Your task to perform on an android device: turn on showing notifications on the lock screen Image 0: 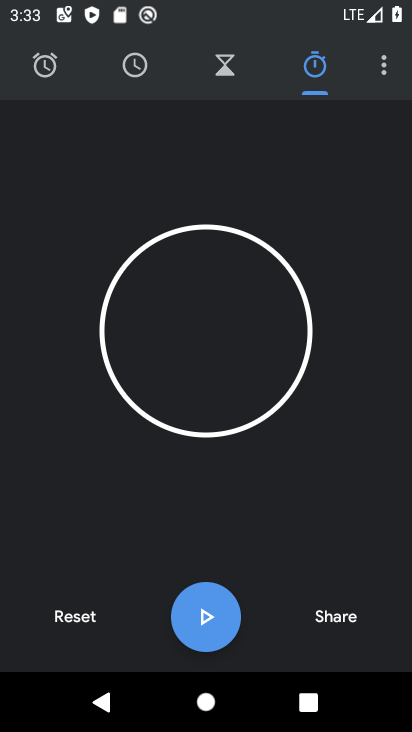
Step 0: press home button
Your task to perform on an android device: turn on showing notifications on the lock screen Image 1: 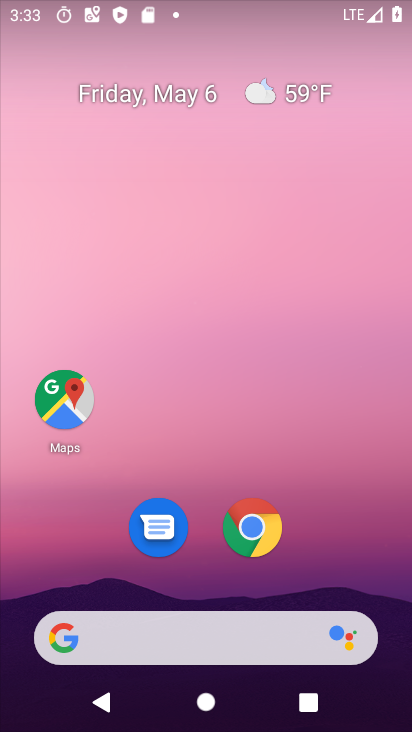
Step 1: drag from (307, 554) to (281, 200)
Your task to perform on an android device: turn on showing notifications on the lock screen Image 2: 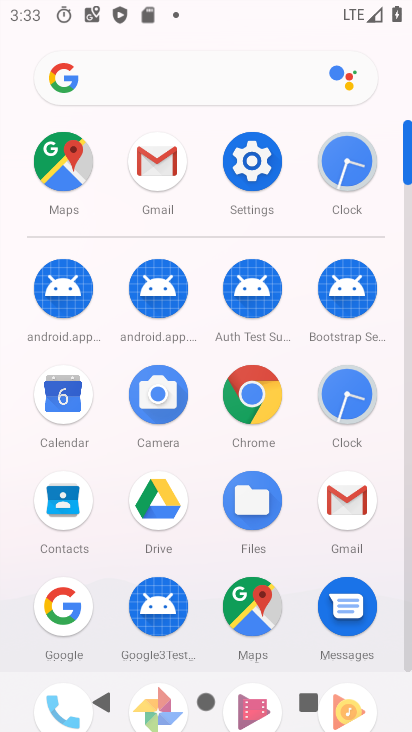
Step 2: click (229, 168)
Your task to perform on an android device: turn on showing notifications on the lock screen Image 3: 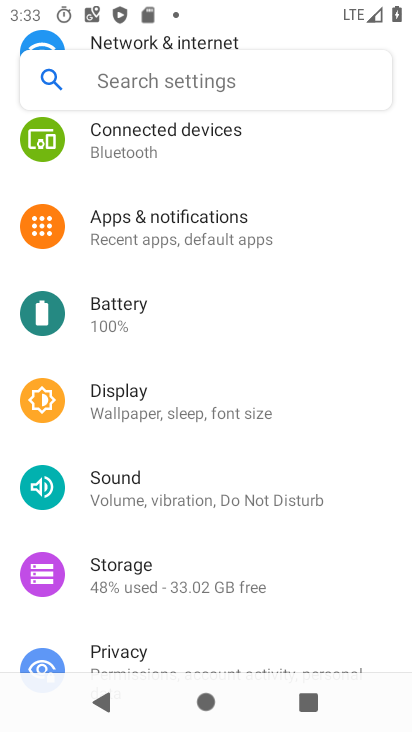
Step 3: click (164, 239)
Your task to perform on an android device: turn on showing notifications on the lock screen Image 4: 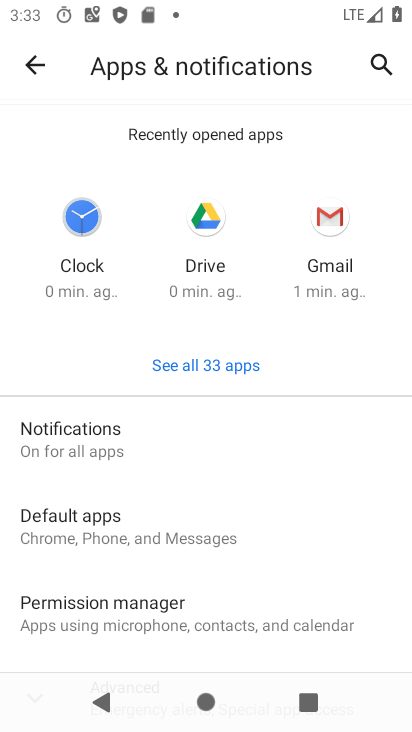
Step 4: drag from (200, 546) to (197, 288)
Your task to perform on an android device: turn on showing notifications on the lock screen Image 5: 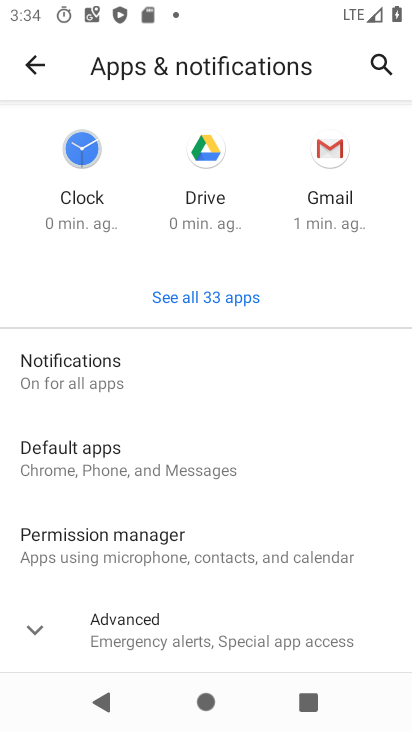
Step 5: click (53, 366)
Your task to perform on an android device: turn on showing notifications on the lock screen Image 6: 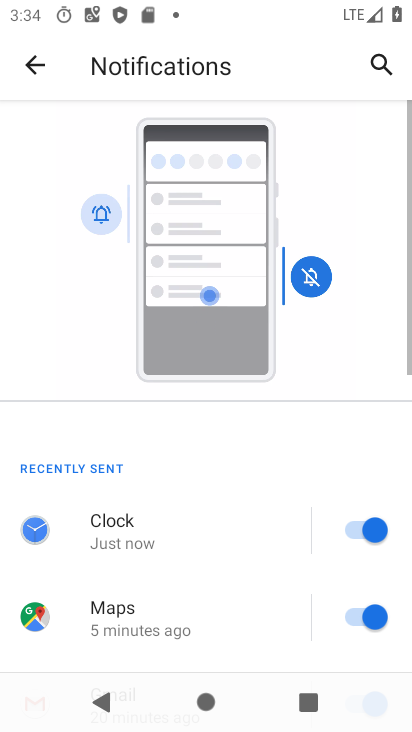
Step 6: drag from (184, 604) to (180, 213)
Your task to perform on an android device: turn on showing notifications on the lock screen Image 7: 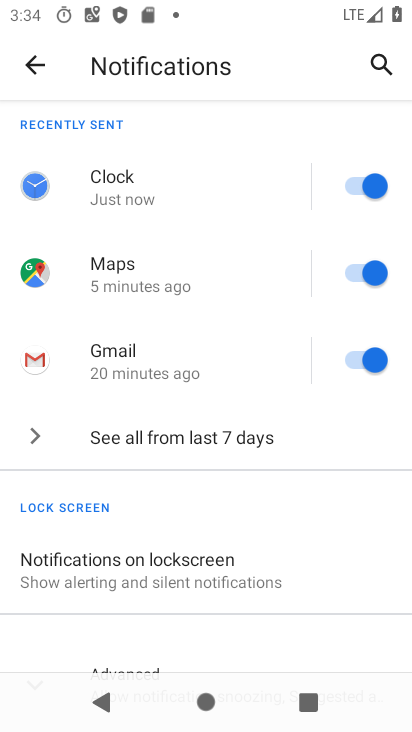
Step 7: click (155, 570)
Your task to perform on an android device: turn on showing notifications on the lock screen Image 8: 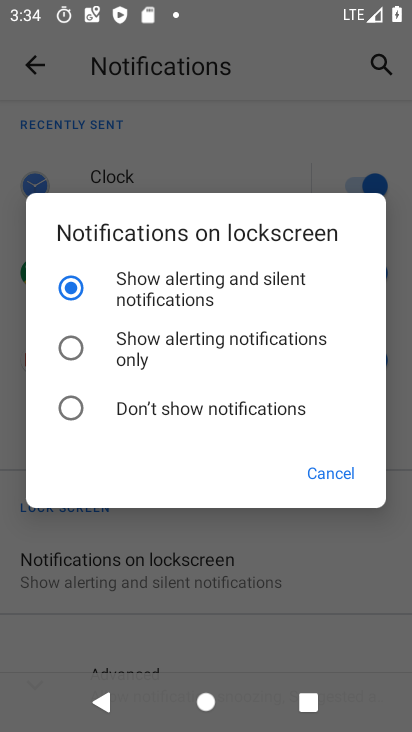
Step 8: task complete